Your task to perform on an android device: open app "Yahoo Mail" (install if not already installed) Image 0: 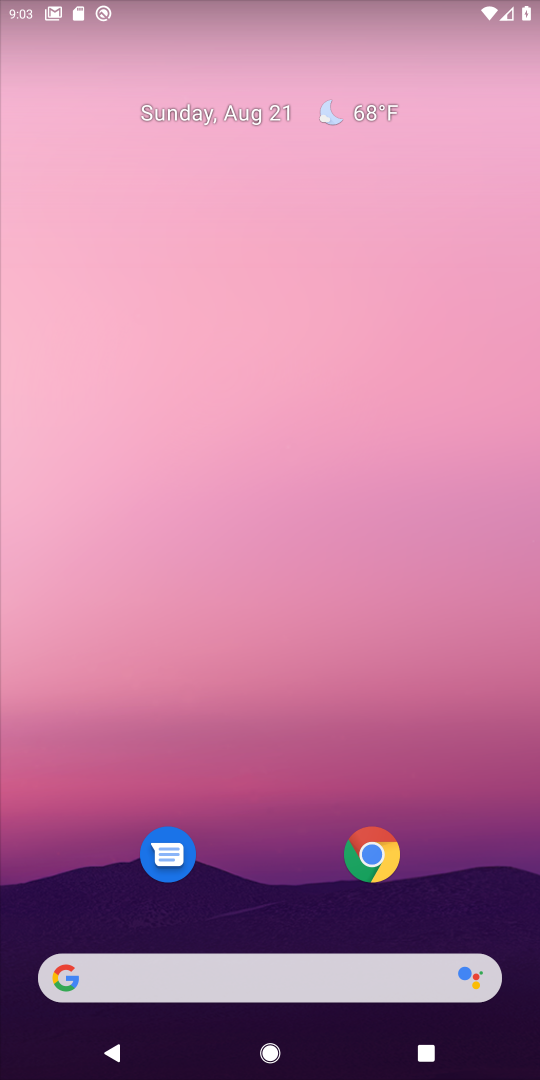
Step 0: drag from (341, 633) to (426, 16)
Your task to perform on an android device: open app "Yahoo Mail" (install if not already installed) Image 1: 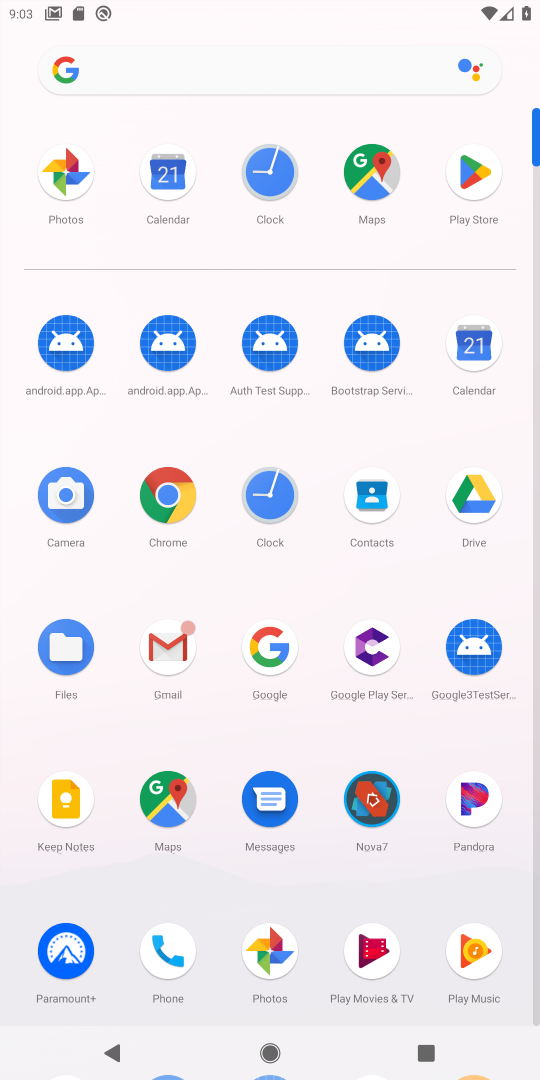
Step 1: click (482, 201)
Your task to perform on an android device: open app "Yahoo Mail" (install if not already installed) Image 2: 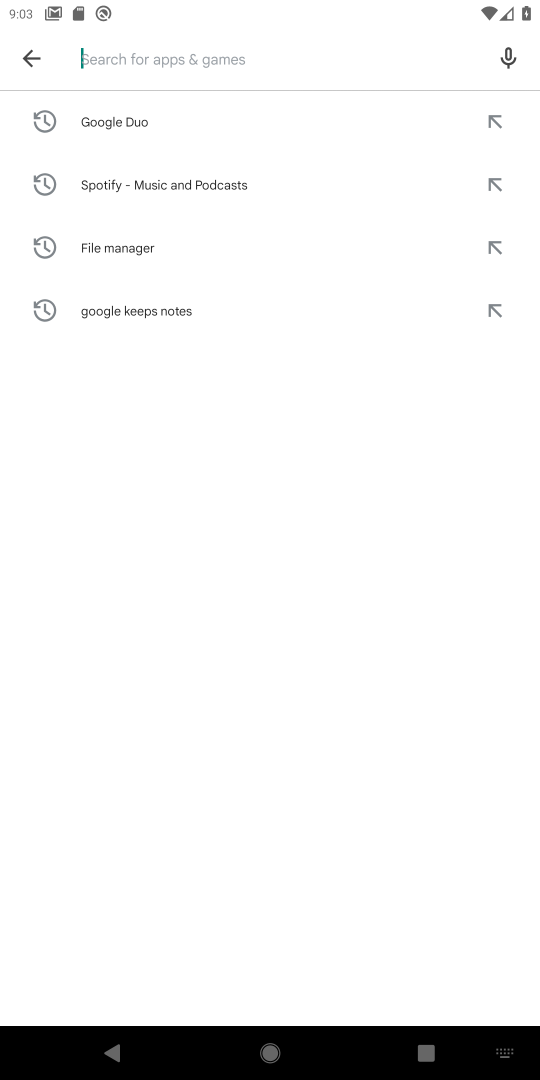
Step 2: type "yahoo."
Your task to perform on an android device: open app "Yahoo Mail" (install if not already installed) Image 3: 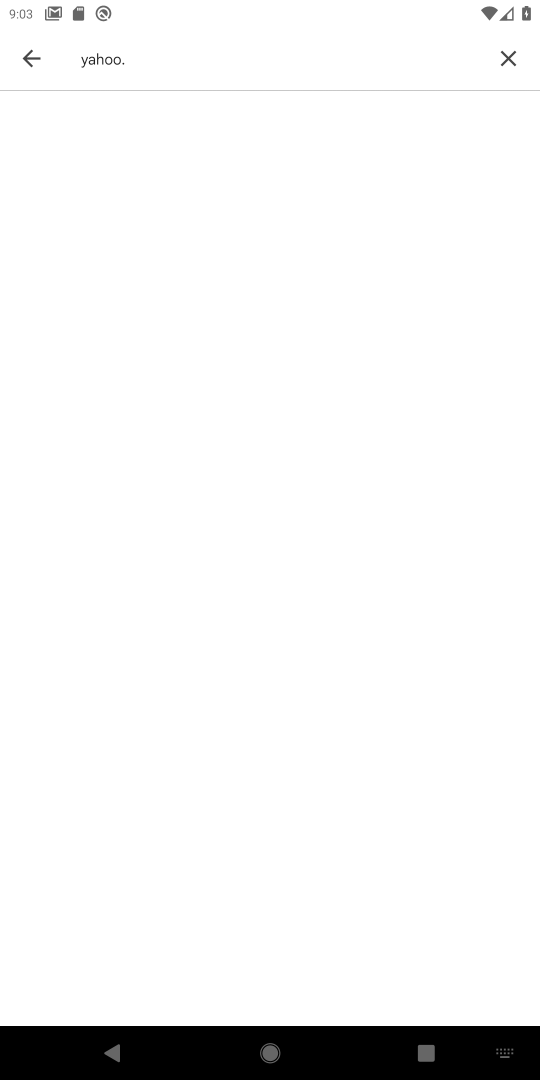
Step 3: task complete